Your task to perform on an android device: Open Amazon Image 0: 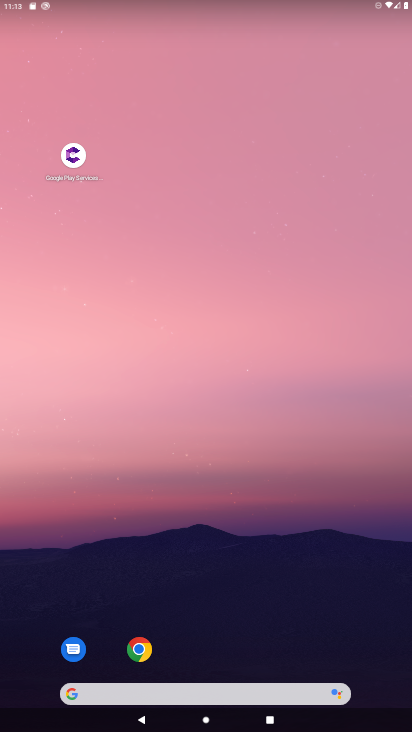
Step 0: click (140, 652)
Your task to perform on an android device: Open Amazon Image 1: 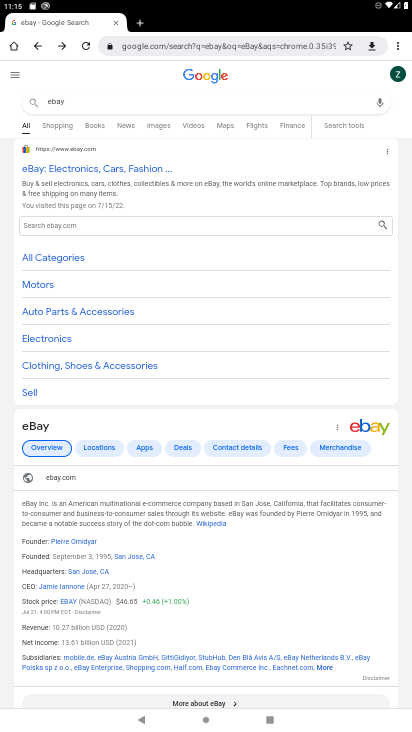
Step 1: task complete